Your task to perform on an android device: find photos in the google photos app Image 0: 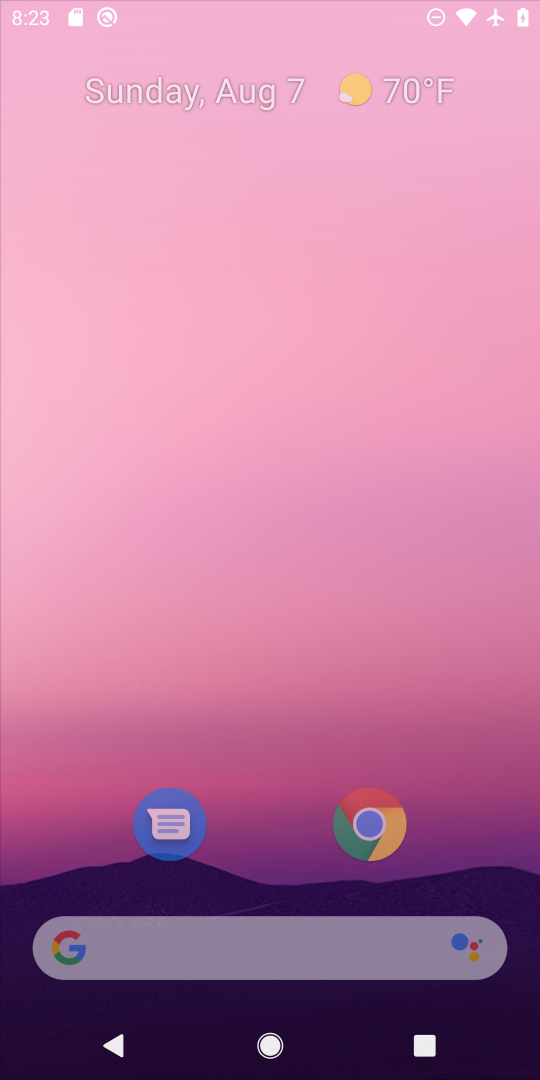
Step 0: press home button
Your task to perform on an android device: find photos in the google photos app Image 1: 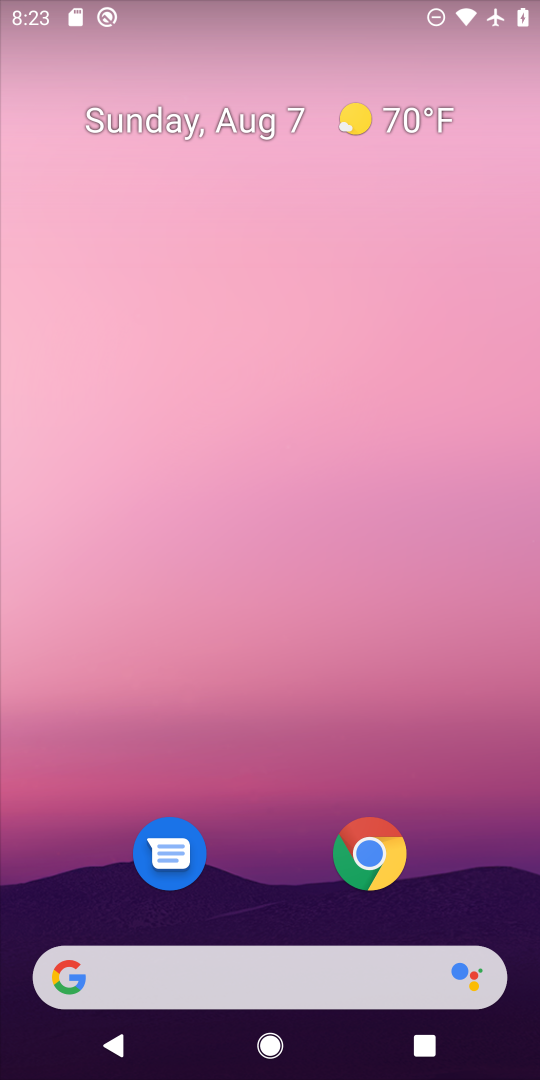
Step 1: drag from (275, 988) to (273, 207)
Your task to perform on an android device: find photos in the google photos app Image 2: 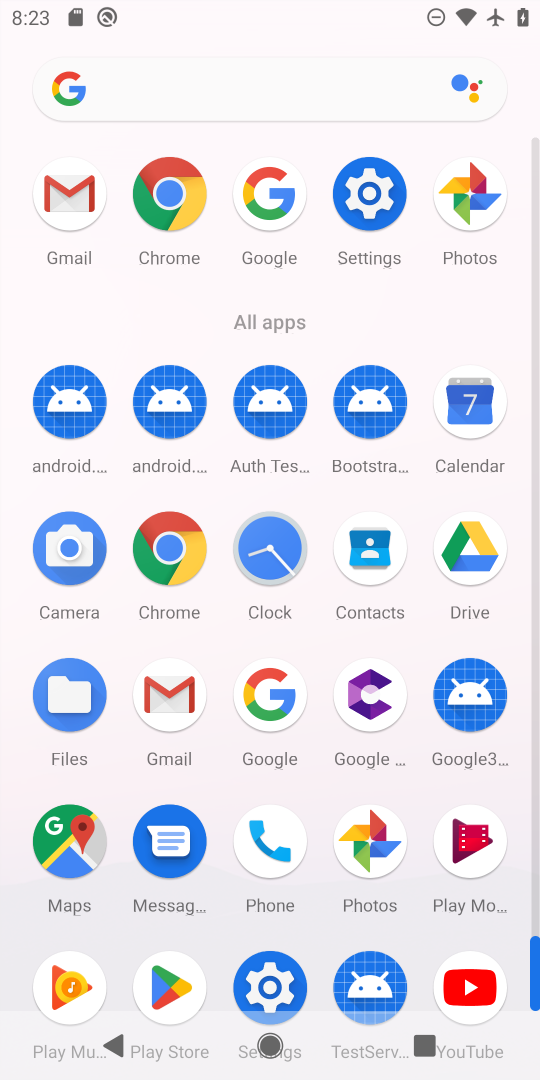
Step 2: click (366, 857)
Your task to perform on an android device: find photos in the google photos app Image 3: 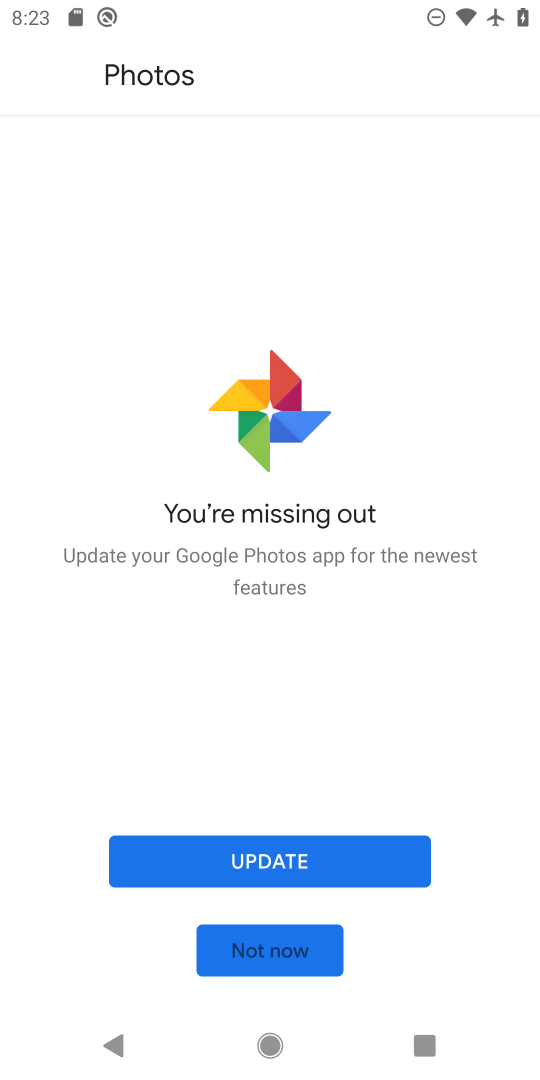
Step 3: click (241, 965)
Your task to perform on an android device: find photos in the google photos app Image 4: 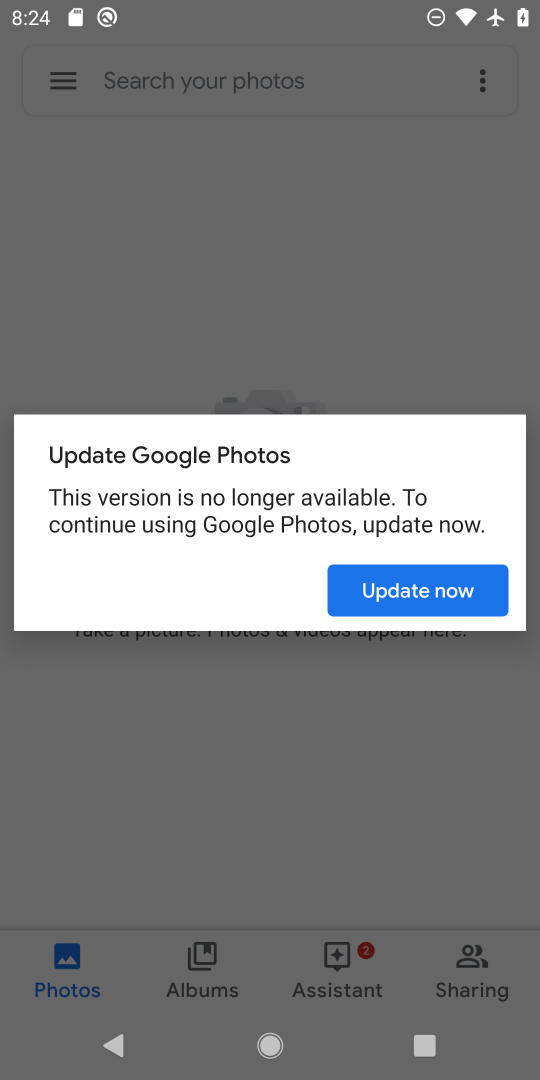
Step 4: task complete